Your task to perform on an android device: Open maps Image 0: 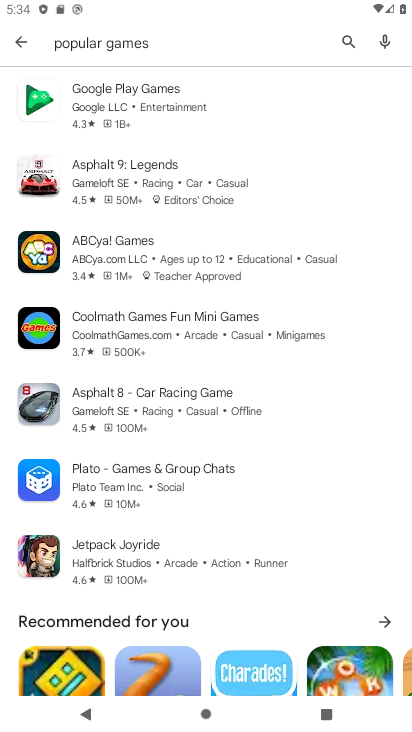
Step 0: press home button
Your task to perform on an android device: Open maps Image 1: 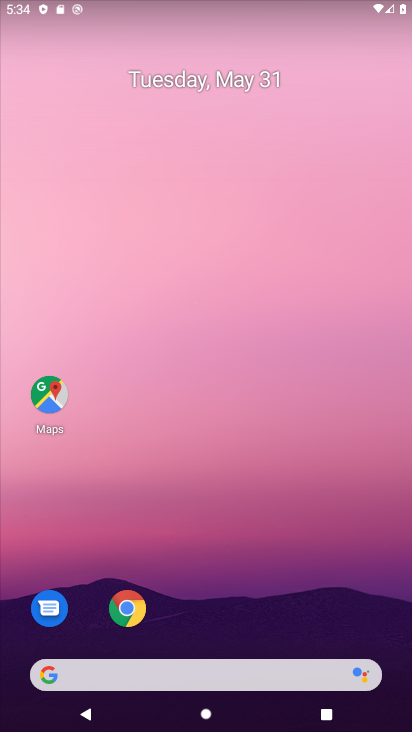
Step 1: click (53, 396)
Your task to perform on an android device: Open maps Image 2: 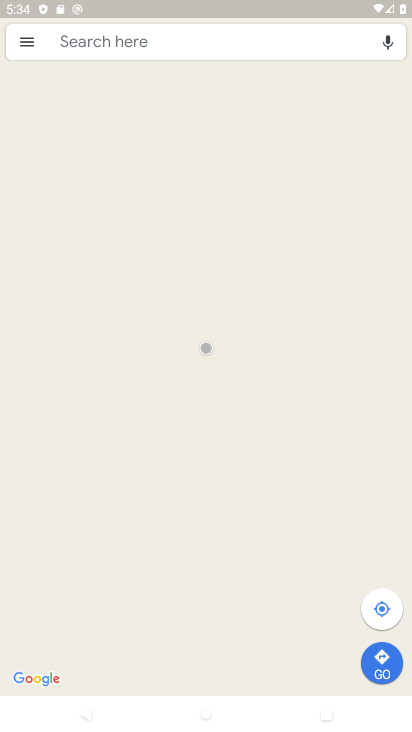
Step 2: task complete